Your task to perform on an android device: Go to notification settings Image 0: 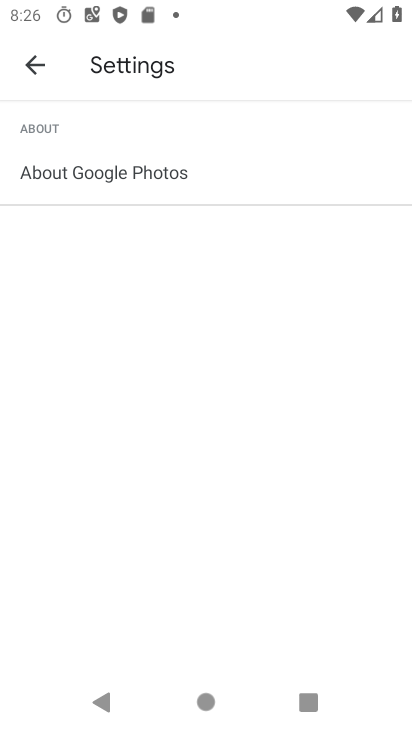
Step 0: press home button
Your task to perform on an android device: Go to notification settings Image 1: 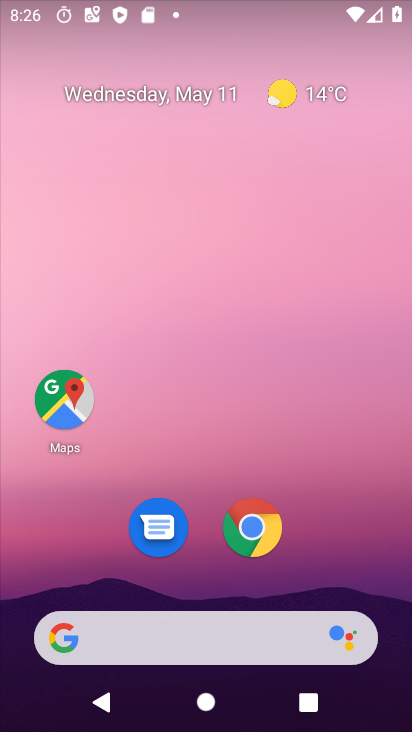
Step 1: drag from (283, 651) to (320, 289)
Your task to perform on an android device: Go to notification settings Image 2: 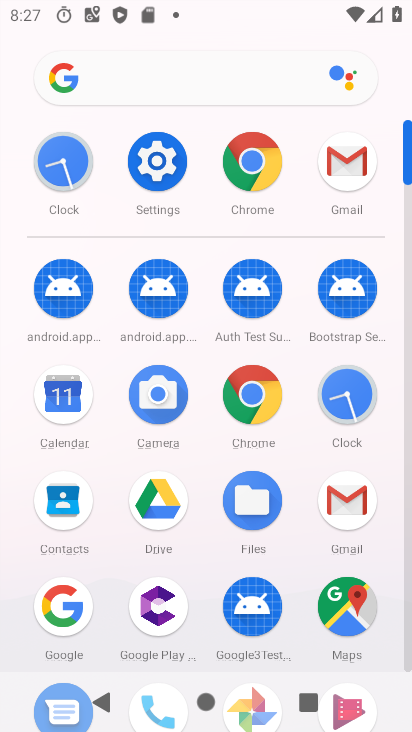
Step 2: click (177, 156)
Your task to perform on an android device: Go to notification settings Image 3: 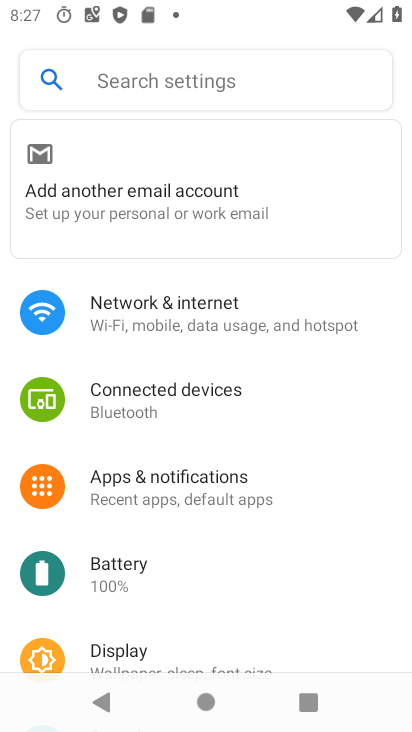
Step 3: drag from (238, 535) to (237, 370)
Your task to perform on an android device: Go to notification settings Image 4: 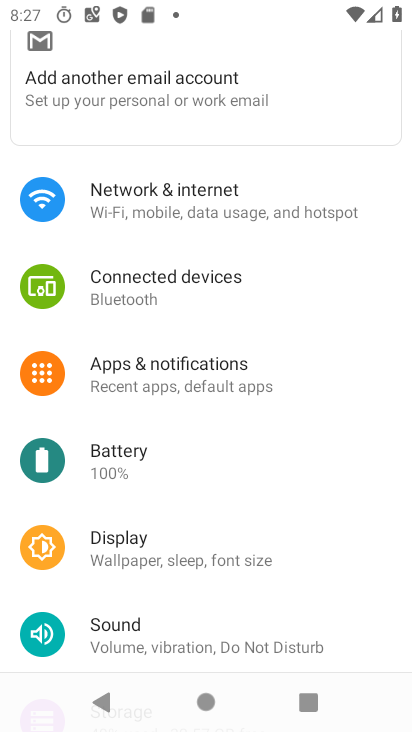
Step 4: click (234, 377)
Your task to perform on an android device: Go to notification settings Image 5: 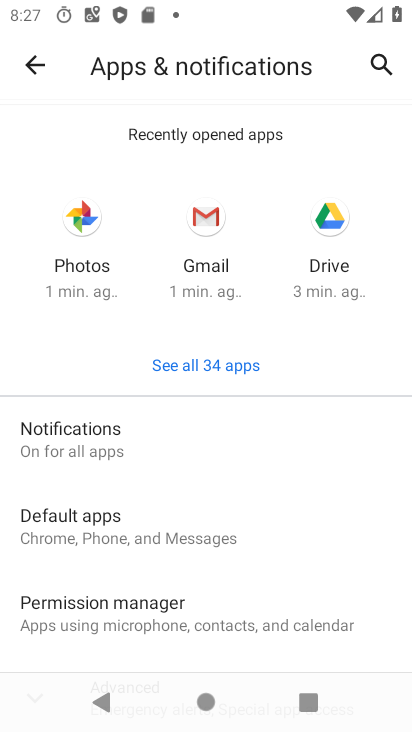
Step 5: click (158, 454)
Your task to perform on an android device: Go to notification settings Image 6: 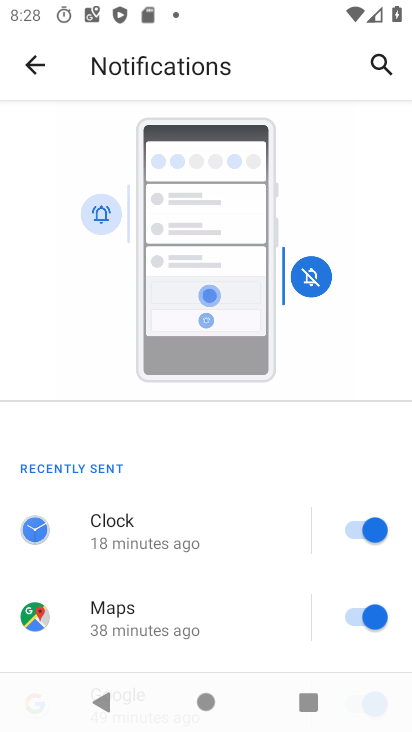
Step 6: task complete